Your task to perform on an android device: turn off wifi Image 0: 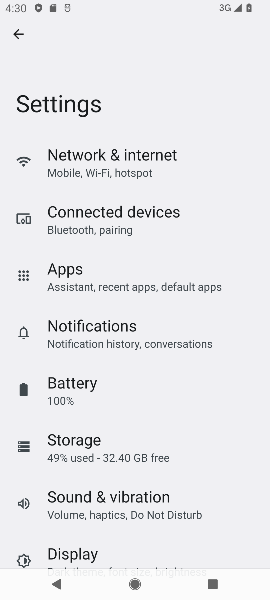
Step 0: click (142, 164)
Your task to perform on an android device: turn off wifi Image 1: 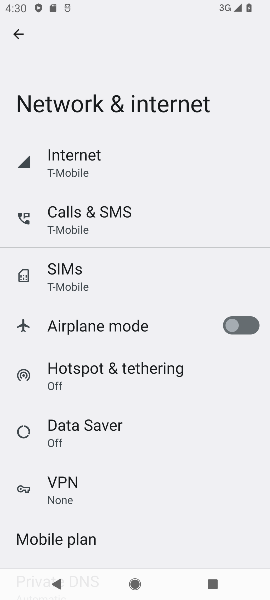
Step 1: click (65, 166)
Your task to perform on an android device: turn off wifi Image 2: 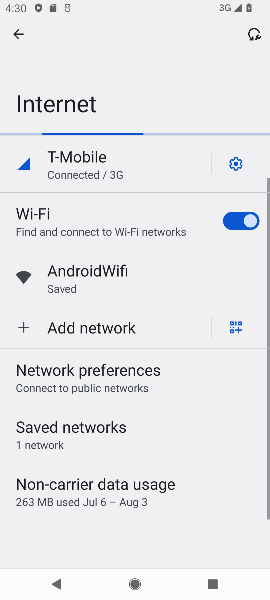
Step 2: click (227, 221)
Your task to perform on an android device: turn off wifi Image 3: 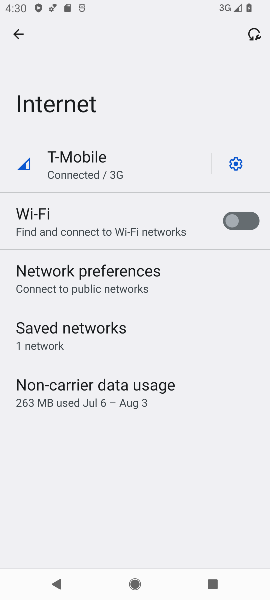
Step 3: task complete